Your task to perform on an android device: Go to Reddit.com Image 0: 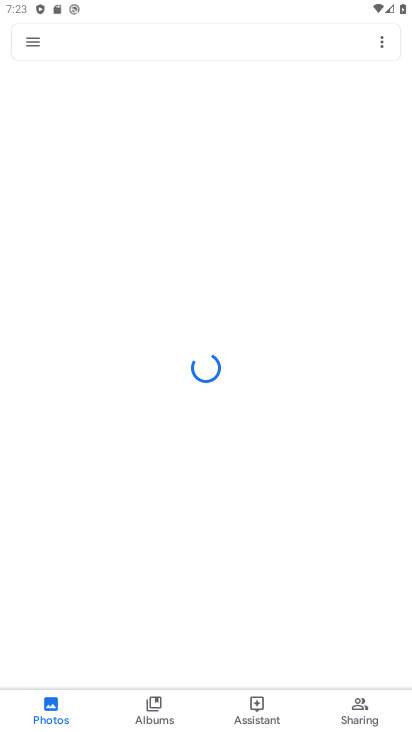
Step 0: press home button
Your task to perform on an android device: Go to Reddit.com Image 1: 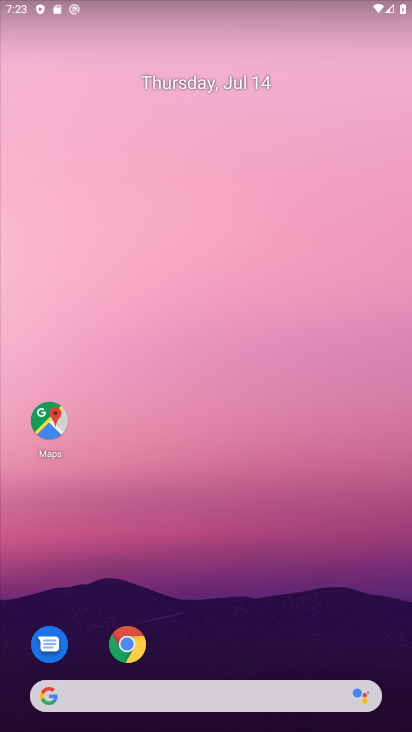
Step 1: click (131, 648)
Your task to perform on an android device: Go to Reddit.com Image 2: 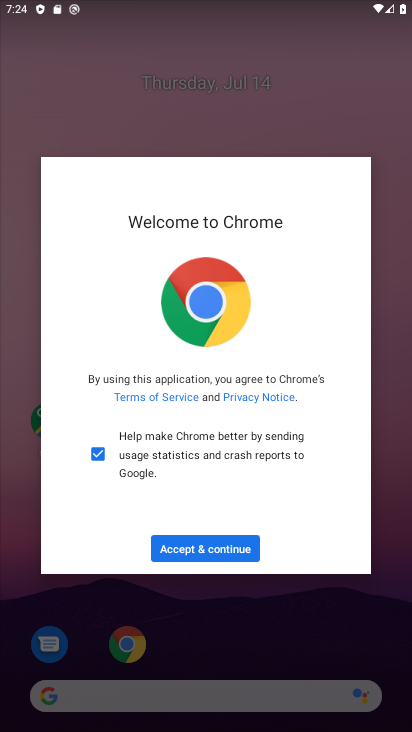
Step 2: click (226, 548)
Your task to perform on an android device: Go to Reddit.com Image 3: 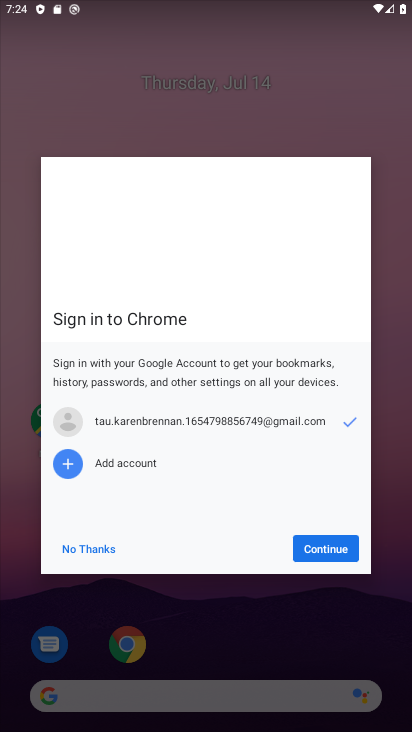
Step 3: click (316, 550)
Your task to perform on an android device: Go to Reddit.com Image 4: 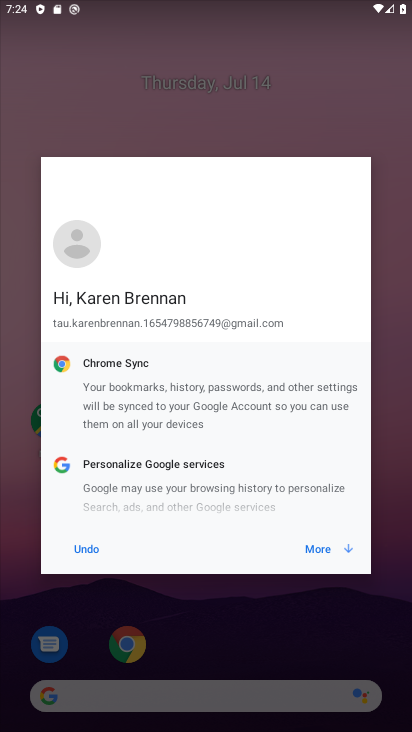
Step 4: click (323, 552)
Your task to perform on an android device: Go to Reddit.com Image 5: 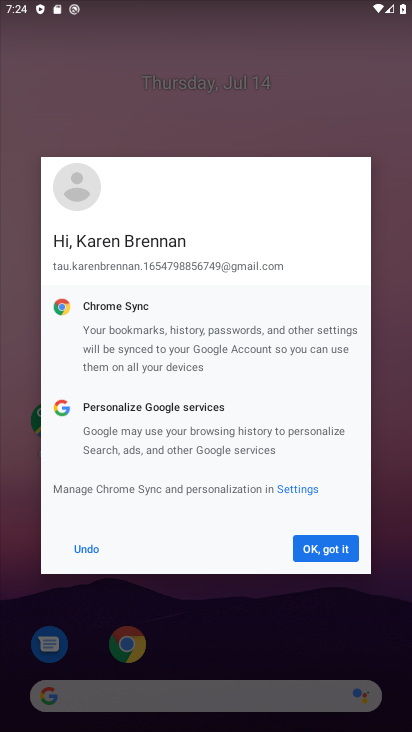
Step 5: click (344, 554)
Your task to perform on an android device: Go to Reddit.com Image 6: 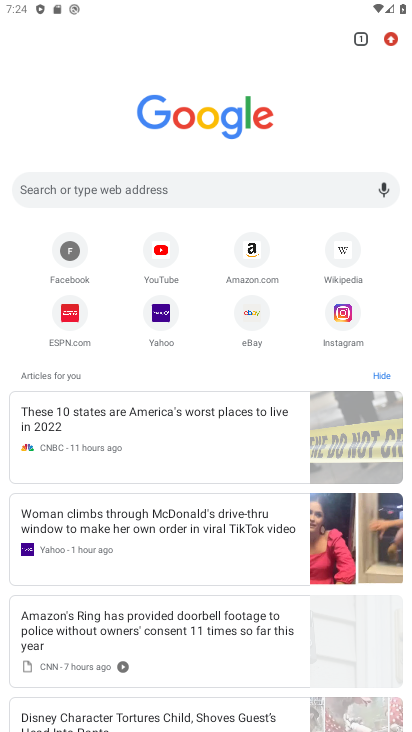
Step 6: click (215, 191)
Your task to perform on an android device: Go to Reddit.com Image 7: 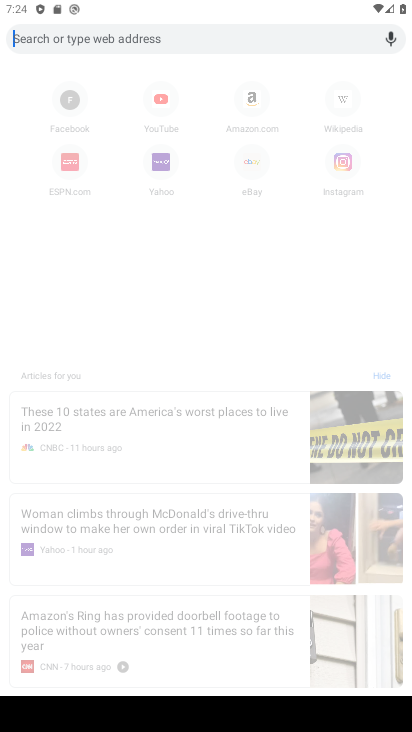
Step 7: type "reddit.com"
Your task to perform on an android device: Go to Reddit.com Image 8: 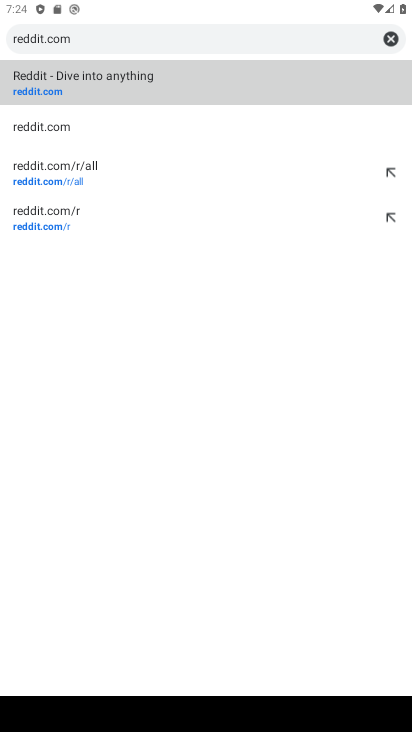
Step 8: click (79, 84)
Your task to perform on an android device: Go to Reddit.com Image 9: 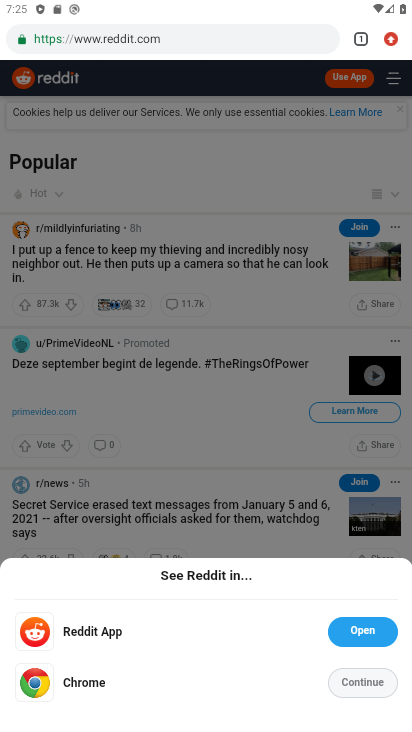
Step 9: task complete